Your task to perform on an android device: delete location history Image 0: 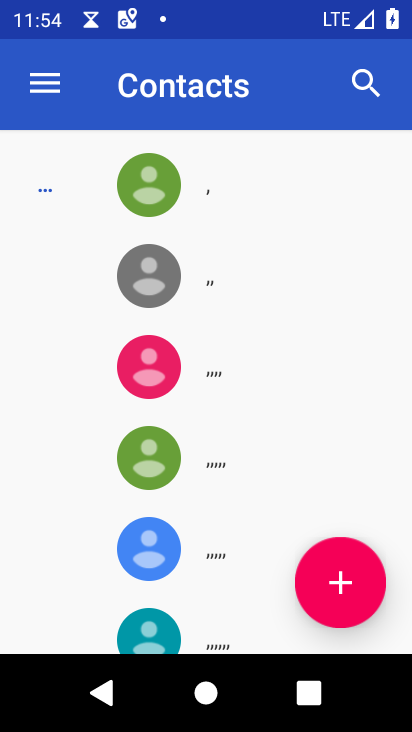
Step 0: press home button
Your task to perform on an android device: delete location history Image 1: 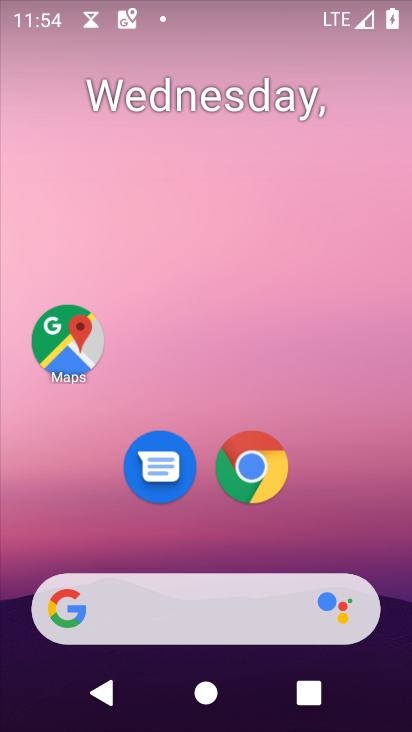
Step 1: drag from (216, 591) to (285, 103)
Your task to perform on an android device: delete location history Image 2: 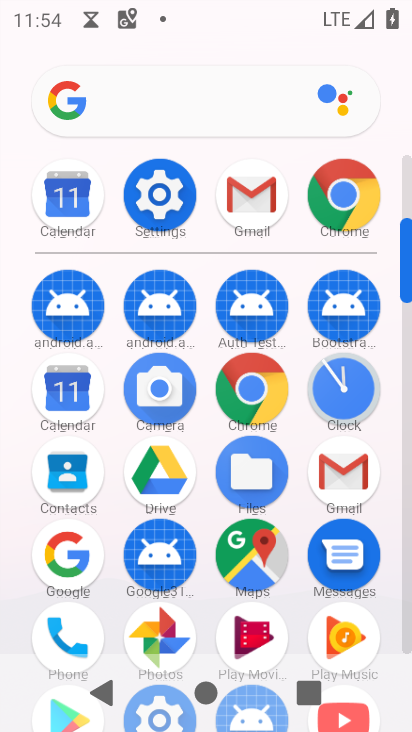
Step 2: click (252, 560)
Your task to perform on an android device: delete location history Image 3: 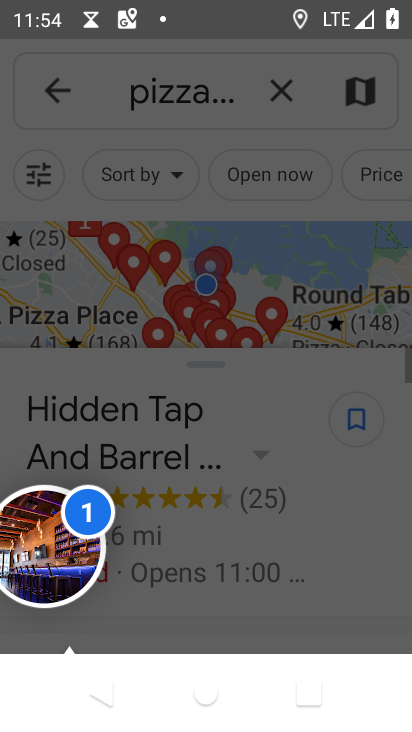
Step 3: drag from (49, 527) to (200, 659)
Your task to perform on an android device: delete location history Image 4: 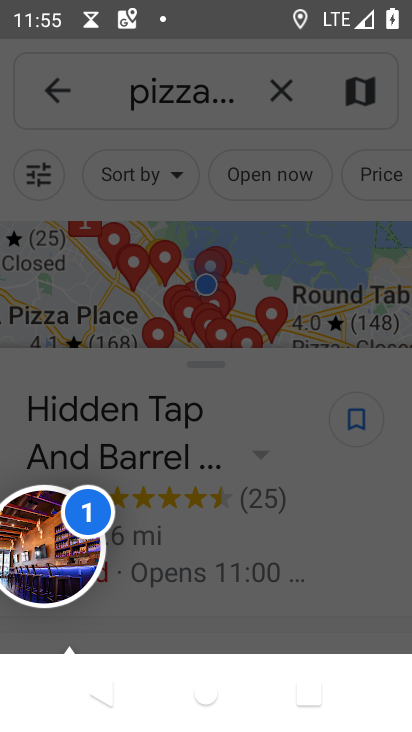
Step 4: click (54, 87)
Your task to perform on an android device: delete location history Image 5: 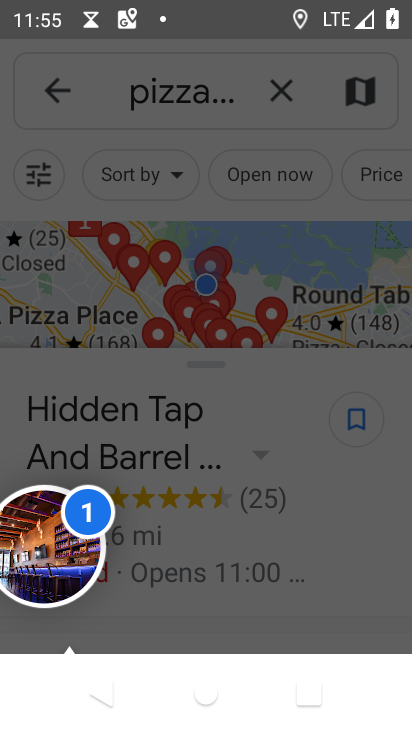
Step 5: click (54, 87)
Your task to perform on an android device: delete location history Image 6: 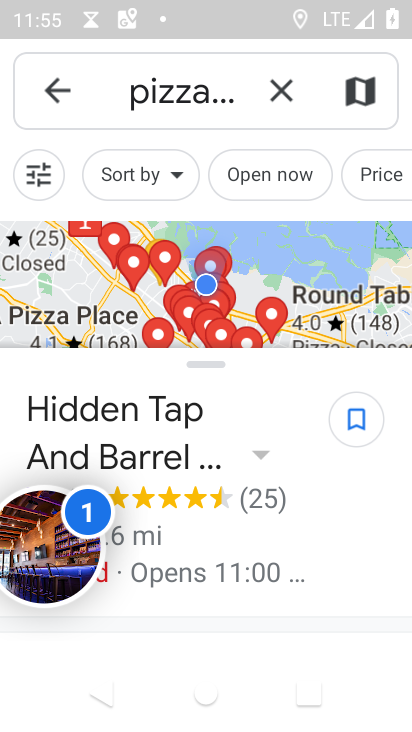
Step 6: drag from (42, 509) to (161, 621)
Your task to perform on an android device: delete location history Image 7: 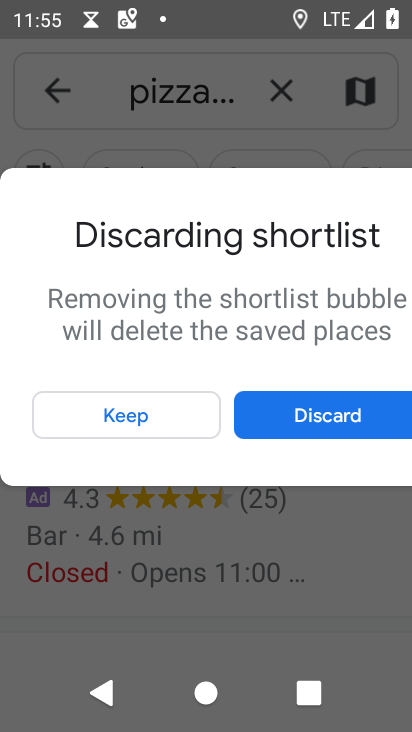
Step 7: click (294, 422)
Your task to perform on an android device: delete location history Image 8: 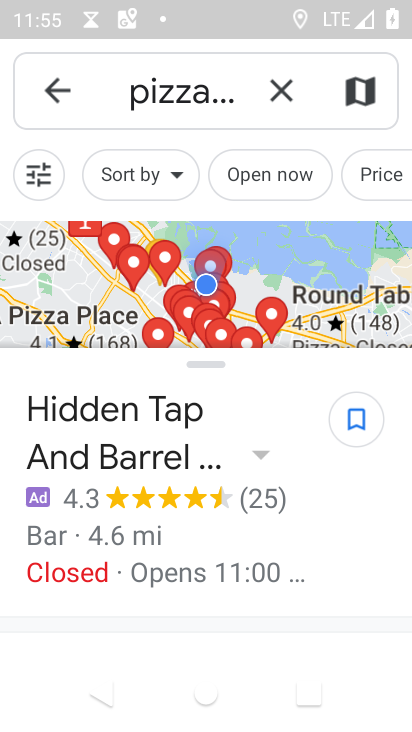
Step 8: click (58, 87)
Your task to perform on an android device: delete location history Image 9: 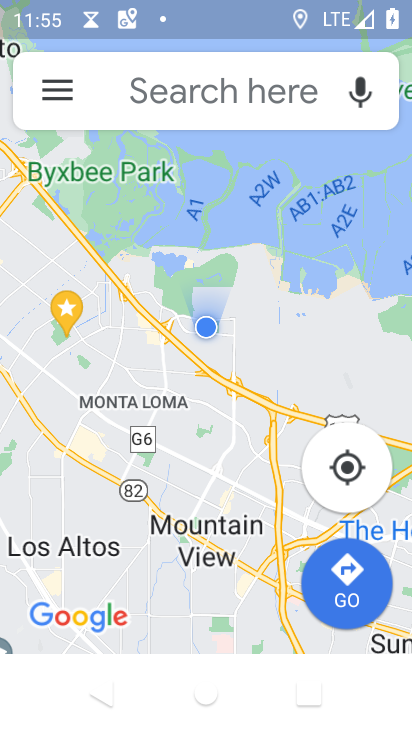
Step 9: click (58, 93)
Your task to perform on an android device: delete location history Image 10: 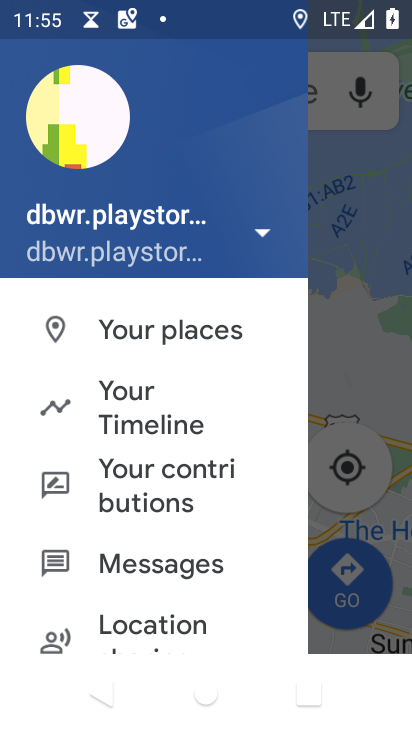
Step 10: click (142, 418)
Your task to perform on an android device: delete location history Image 11: 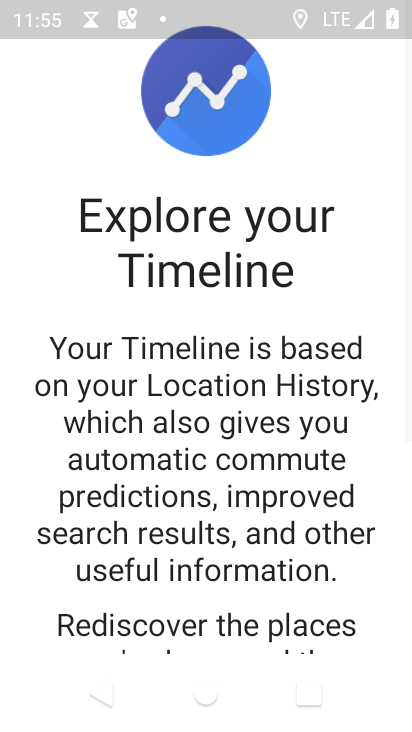
Step 11: drag from (184, 613) to (316, 155)
Your task to perform on an android device: delete location history Image 12: 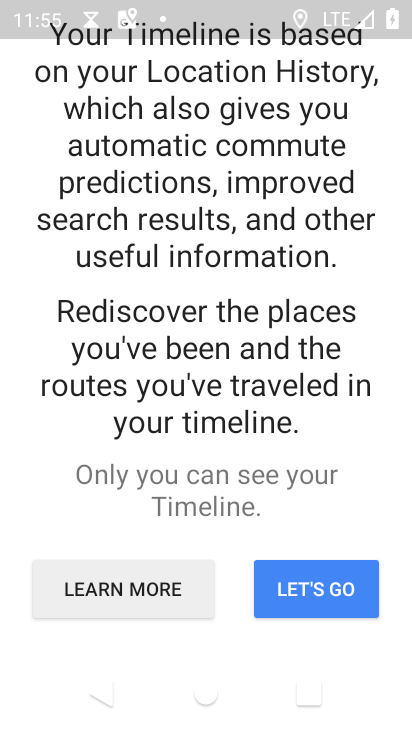
Step 12: click (331, 591)
Your task to perform on an android device: delete location history Image 13: 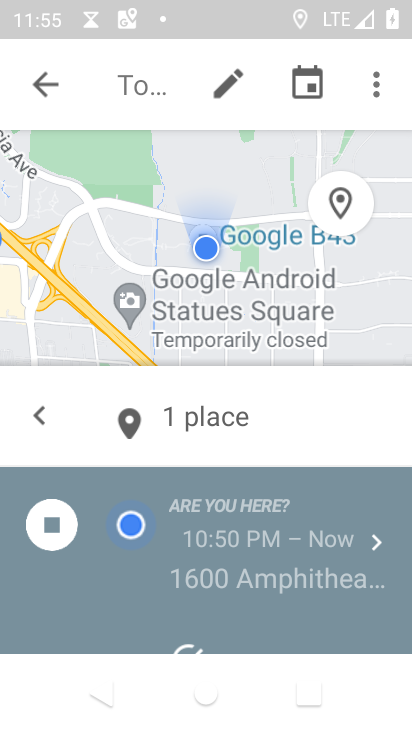
Step 13: click (377, 102)
Your task to perform on an android device: delete location history Image 14: 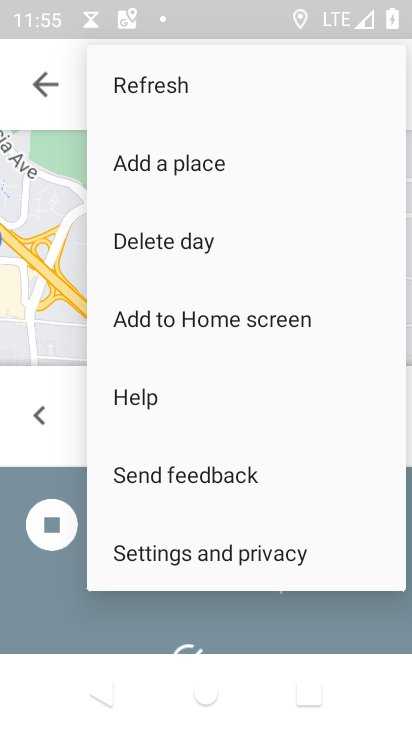
Step 14: click (229, 561)
Your task to perform on an android device: delete location history Image 15: 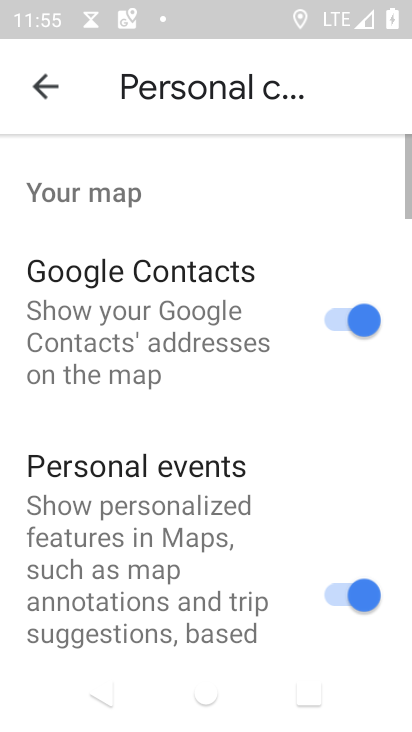
Step 15: drag from (180, 607) to (299, 141)
Your task to perform on an android device: delete location history Image 16: 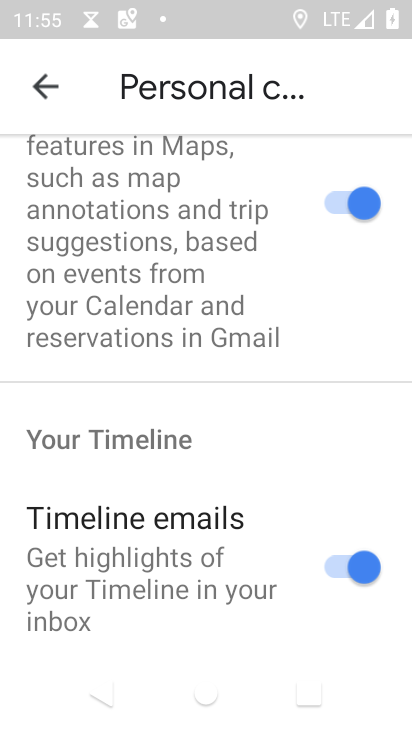
Step 16: drag from (192, 626) to (335, 156)
Your task to perform on an android device: delete location history Image 17: 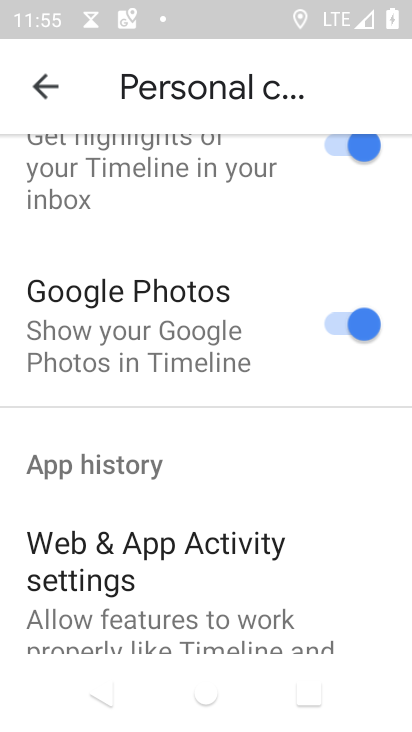
Step 17: drag from (186, 556) to (268, 181)
Your task to perform on an android device: delete location history Image 18: 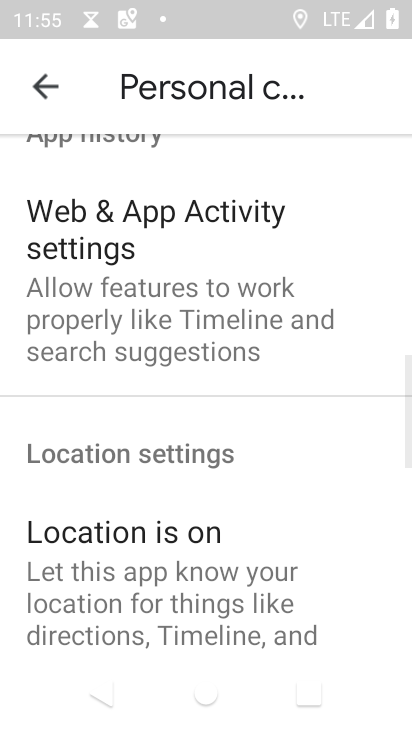
Step 18: drag from (191, 498) to (305, 173)
Your task to perform on an android device: delete location history Image 19: 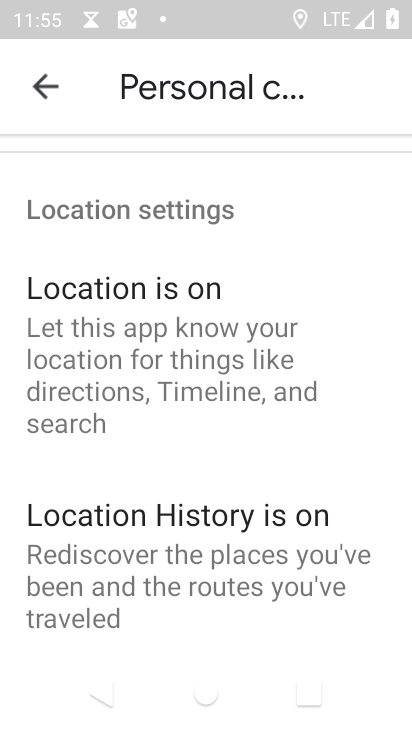
Step 19: drag from (221, 485) to (302, 250)
Your task to perform on an android device: delete location history Image 20: 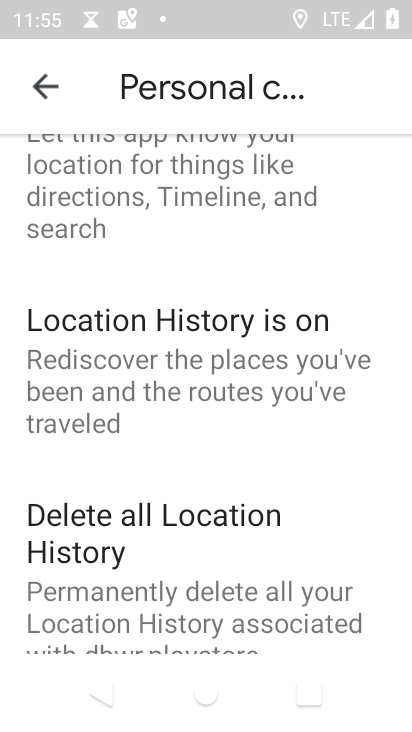
Step 20: click (183, 515)
Your task to perform on an android device: delete location history Image 21: 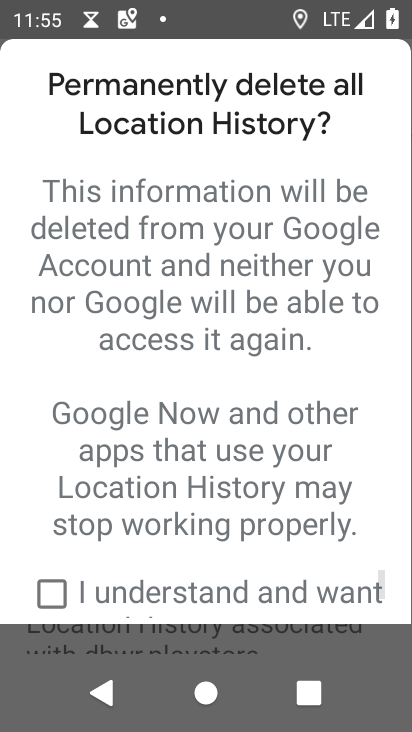
Step 21: click (43, 597)
Your task to perform on an android device: delete location history Image 22: 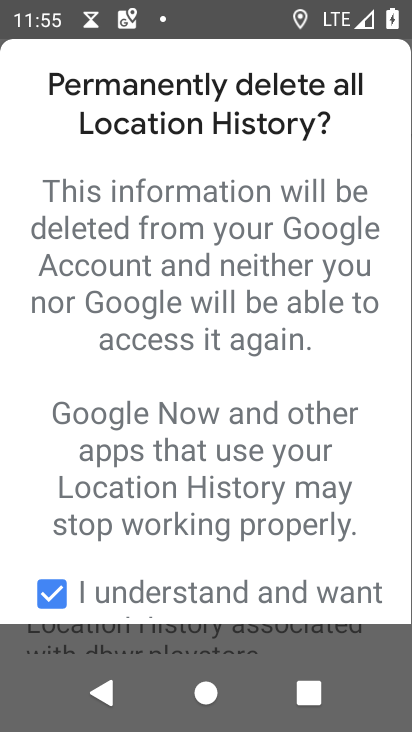
Step 22: task complete